Your task to perform on an android device: Go to Android settings Image 0: 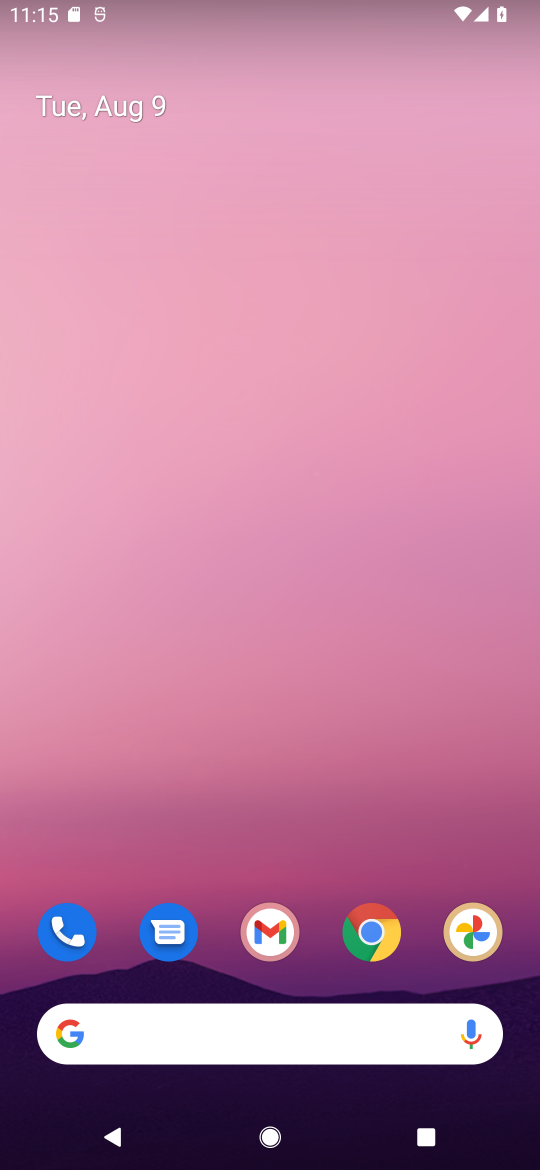
Step 0: click (279, 0)
Your task to perform on an android device: Go to Android settings Image 1: 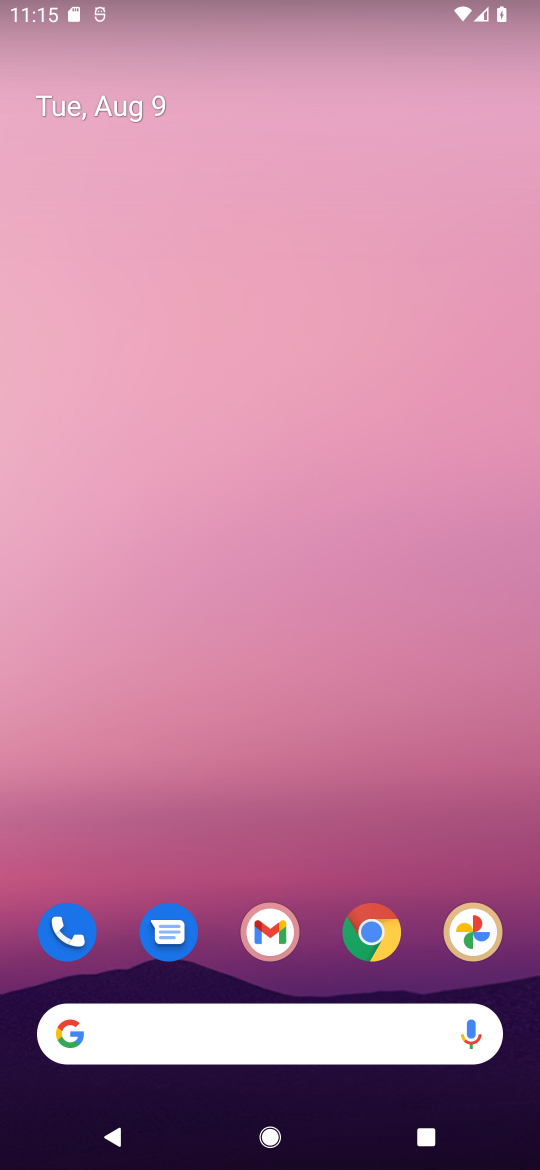
Step 1: drag from (233, 979) to (196, 2)
Your task to perform on an android device: Go to Android settings Image 2: 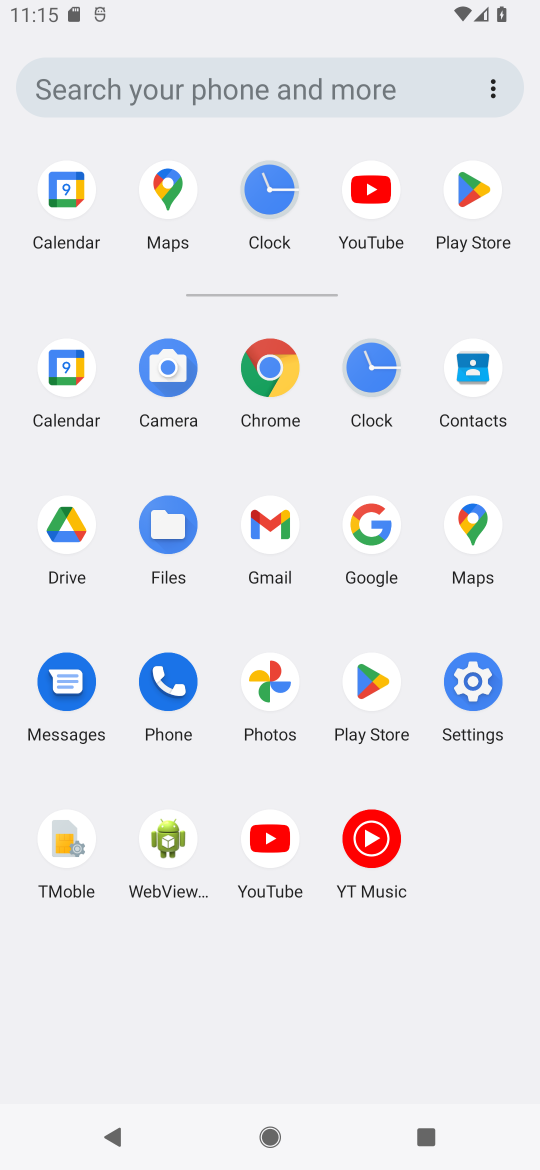
Step 2: click (471, 695)
Your task to perform on an android device: Go to Android settings Image 3: 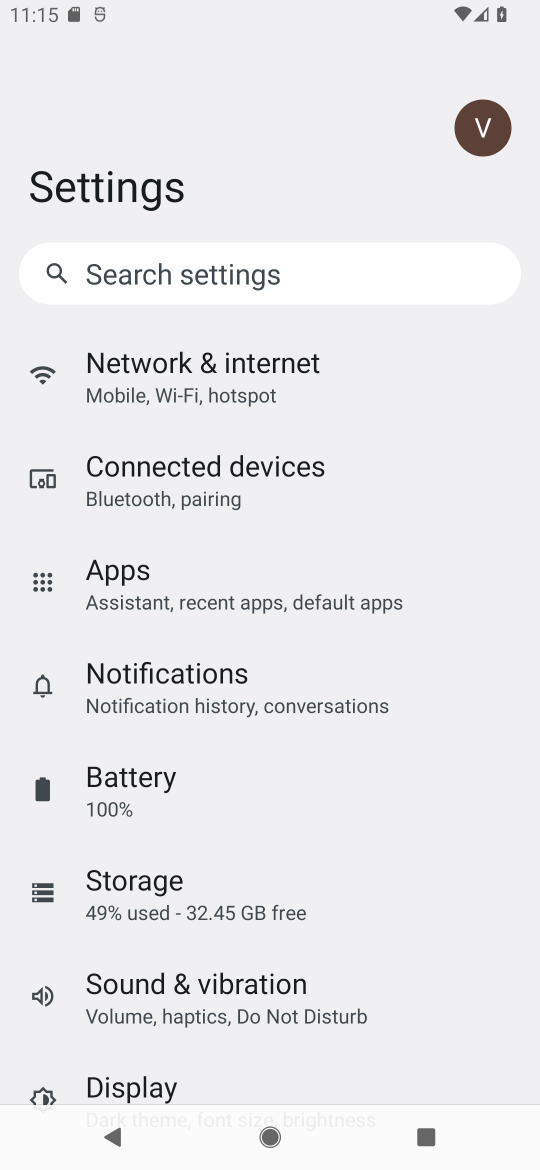
Step 3: drag from (229, 581) to (281, 267)
Your task to perform on an android device: Go to Android settings Image 4: 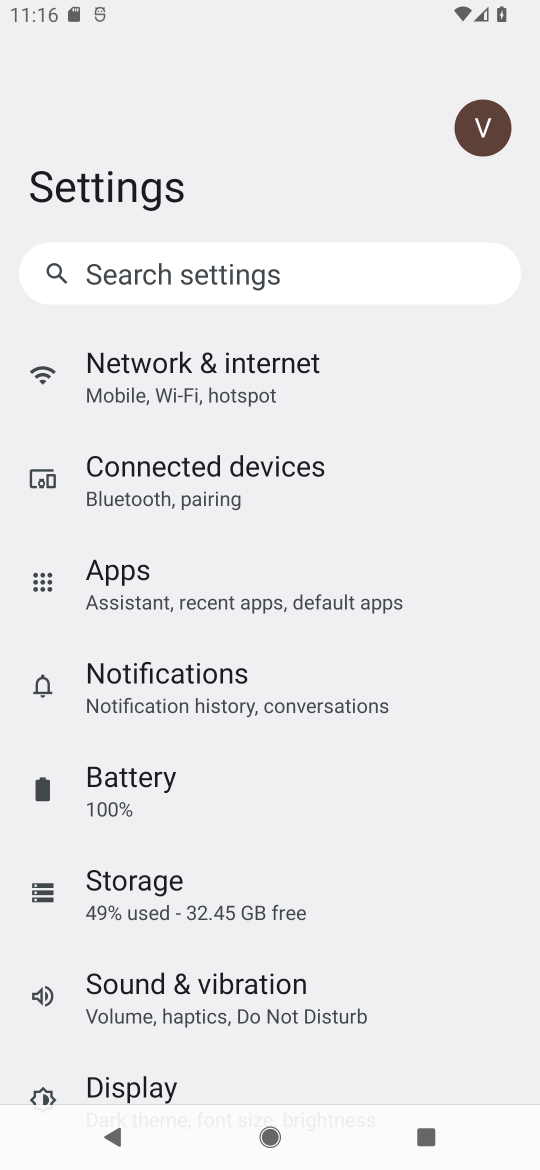
Step 4: drag from (211, 793) to (247, 343)
Your task to perform on an android device: Go to Android settings Image 5: 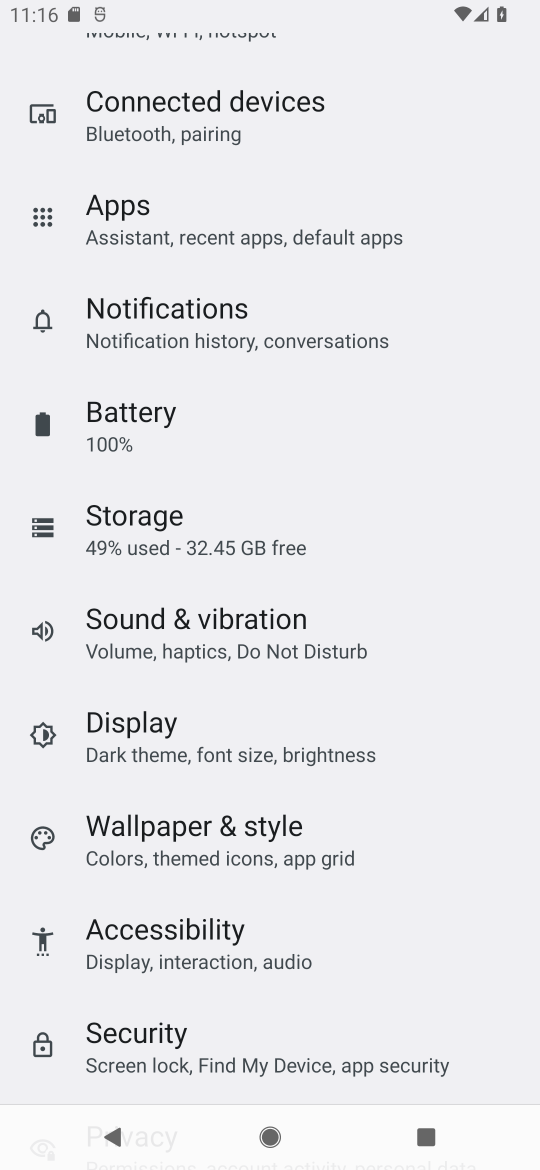
Step 5: drag from (211, 841) to (392, 1)
Your task to perform on an android device: Go to Android settings Image 6: 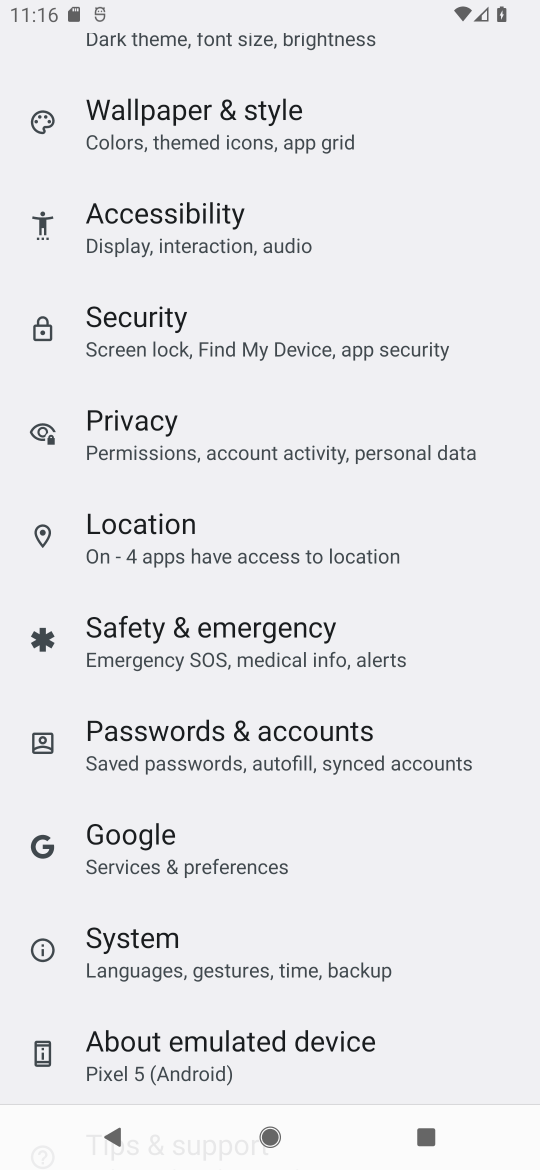
Step 6: drag from (210, 1018) to (289, 513)
Your task to perform on an android device: Go to Android settings Image 7: 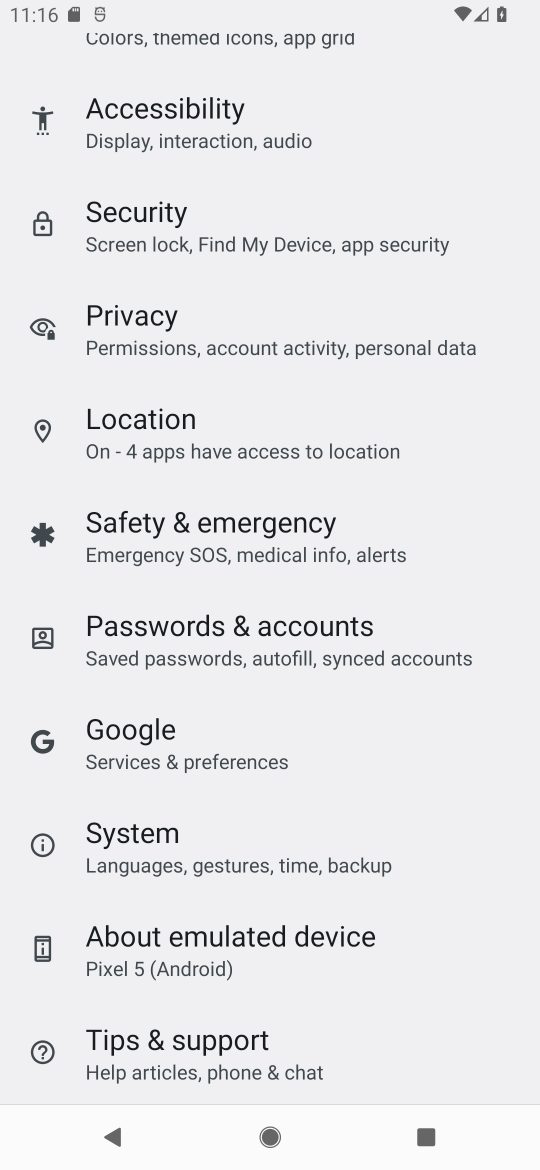
Step 7: click (204, 973)
Your task to perform on an android device: Go to Android settings Image 8: 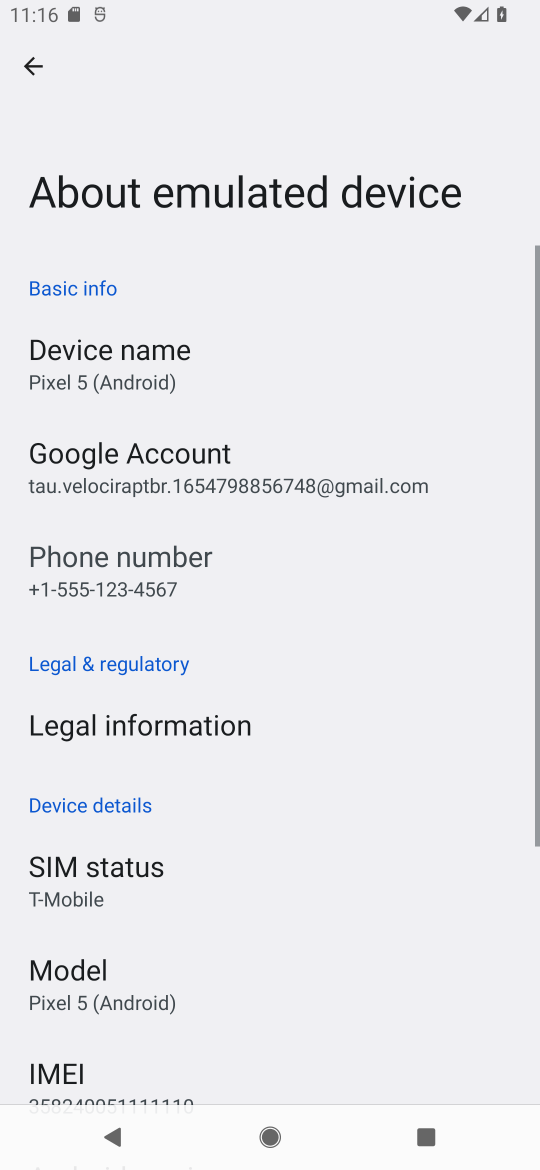
Step 8: drag from (232, 362) to (238, 292)
Your task to perform on an android device: Go to Android settings Image 9: 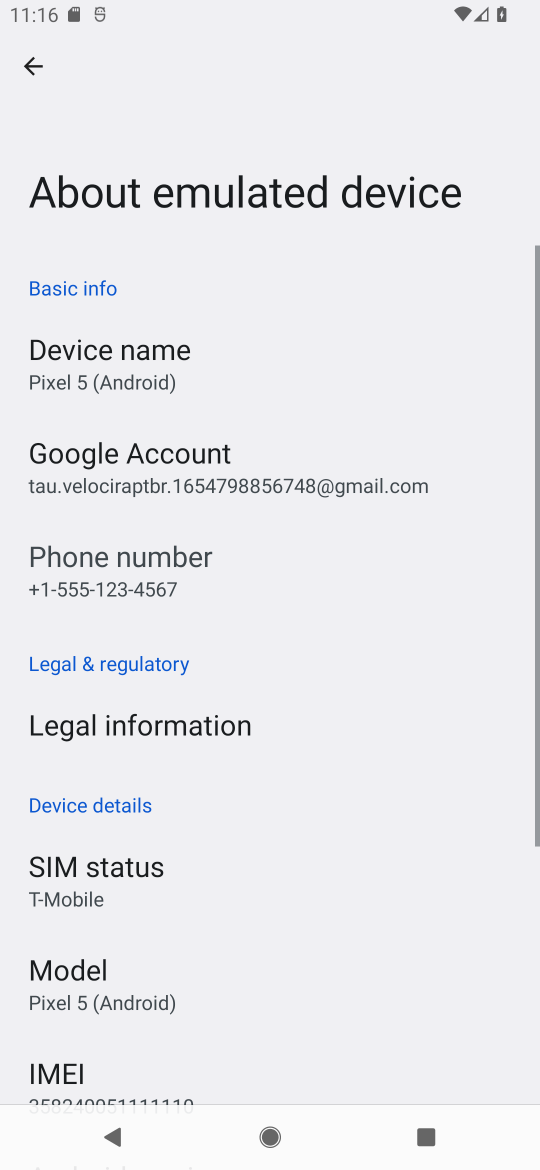
Step 9: drag from (204, 918) to (238, 208)
Your task to perform on an android device: Go to Android settings Image 10: 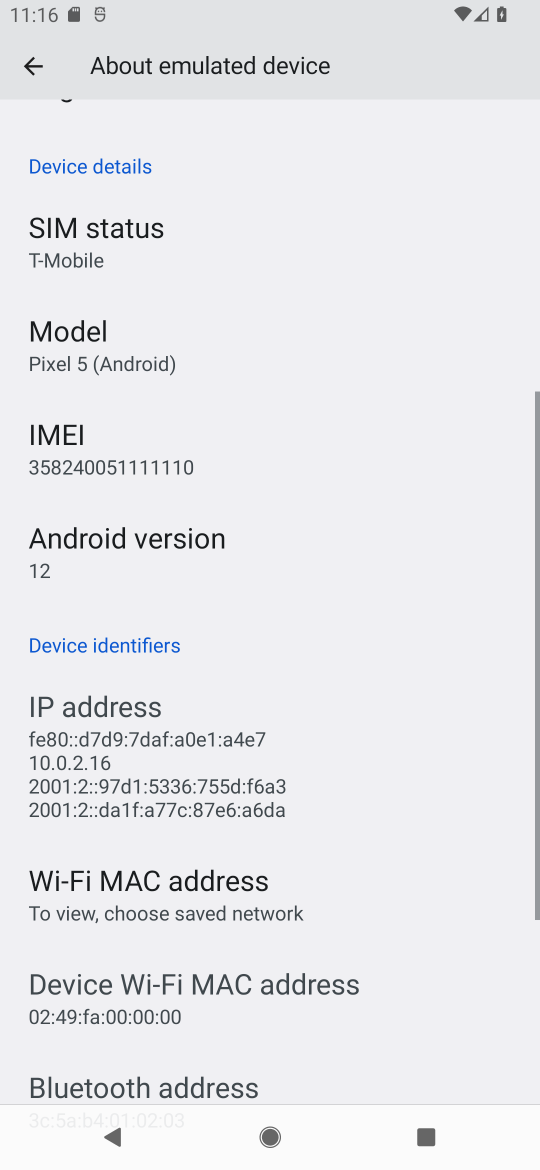
Step 10: click (135, 550)
Your task to perform on an android device: Go to Android settings Image 11: 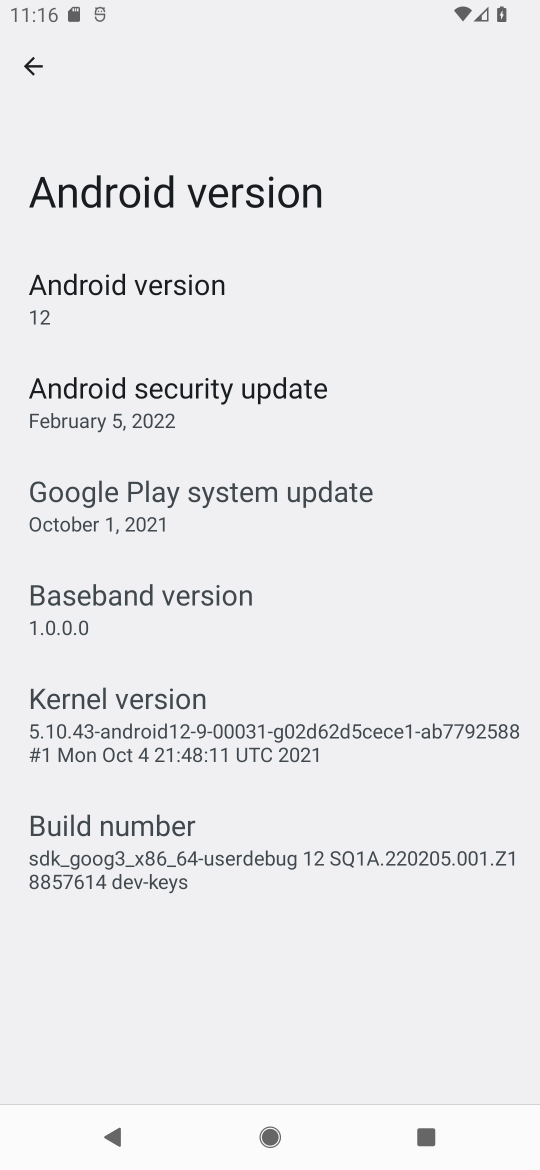
Step 11: task complete